Your task to perform on an android device: Search for a dining table on Crate & Barrel Image 0: 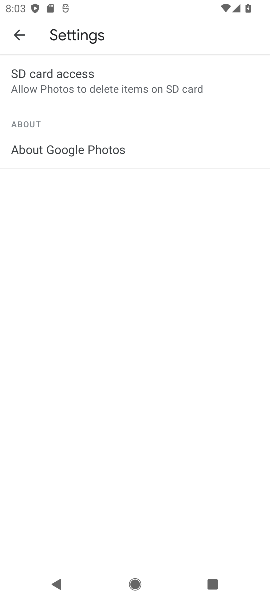
Step 0: press home button
Your task to perform on an android device: Search for a dining table on Crate & Barrel Image 1: 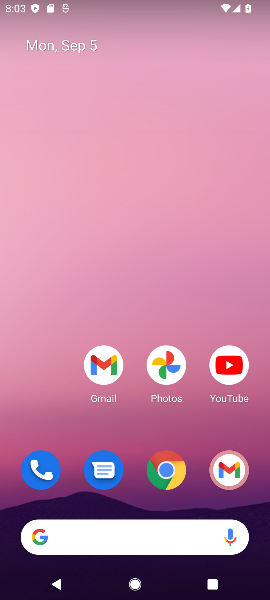
Step 1: click (133, 542)
Your task to perform on an android device: Search for a dining table on Crate & Barrel Image 2: 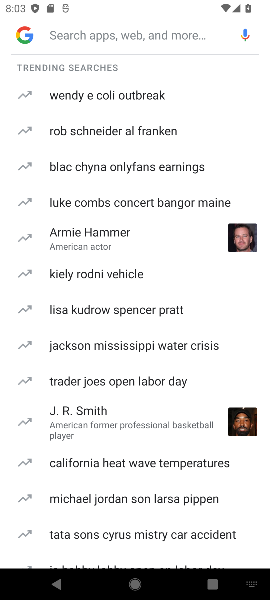
Step 2: type "crate & barrel"
Your task to perform on an android device: Search for a dining table on Crate & Barrel Image 3: 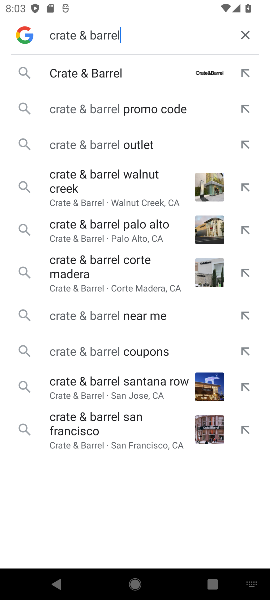
Step 3: click (94, 68)
Your task to perform on an android device: Search for a dining table on Crate & Barrel Image 4: 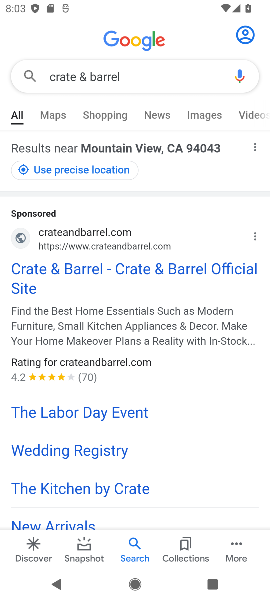
Step 4: click (89, 264)
Your task to perform on an android device: Search for a dining table on Crate & Barrel Image 5: 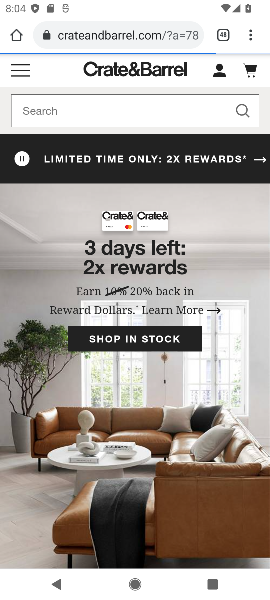
Step 5: click (111, 108)
Your task to perform on an android device: Search for a dining table on Crate & Barrel Image 6: 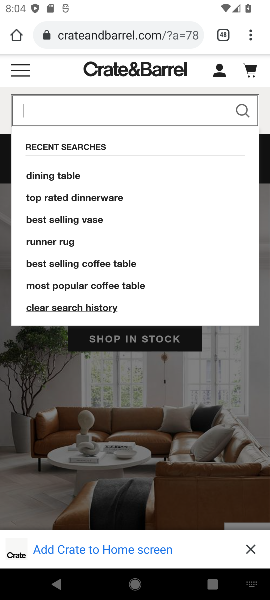
Step 6: type "dining table"
Your task to perform on an android device: Search for a dining table on Crate & Barrel Image 7: 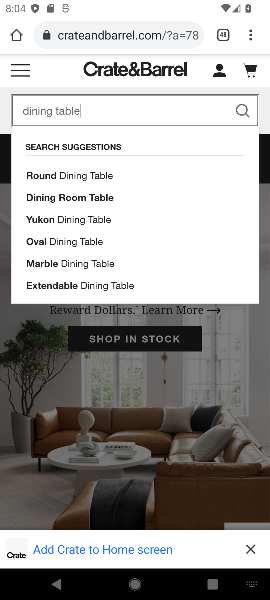
Step 7: click (238, 106)
Your task to perform on an android device: Search for a dining table on Crate & Barrel Image 8: 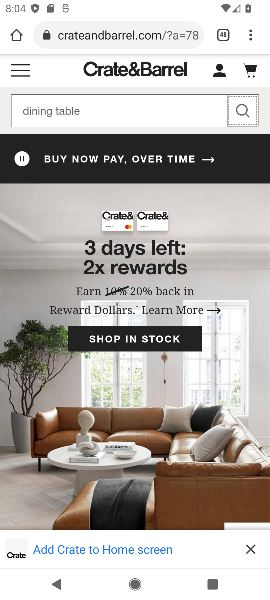
Step 8: click (235, 102)
Your task to perform on an android device: Search for a dining table on Crate & Barrel Image 9: 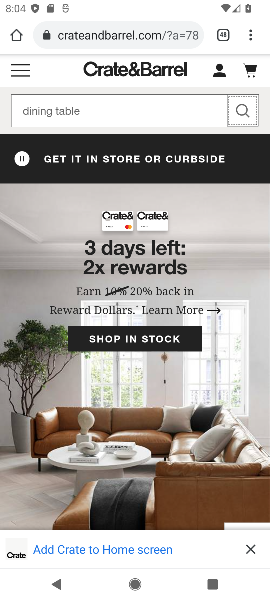
Step 9: click (249, 550)
Your task to perform on an android device: Search for a dining table on Crate & Barrel Image 10: 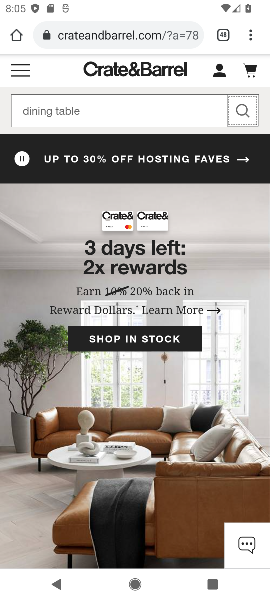
Step 10: click (244, 113)
Your task to perform on an android device: Search for a dining table on Crate & Barrel Image 11: 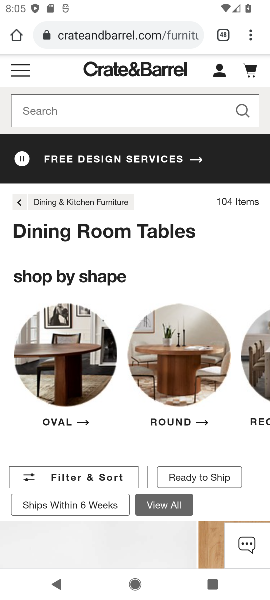
Step 11: click (164, 503)
Your task to perform on an android device: Search for a dining table on Crate & Barrel Image 12: 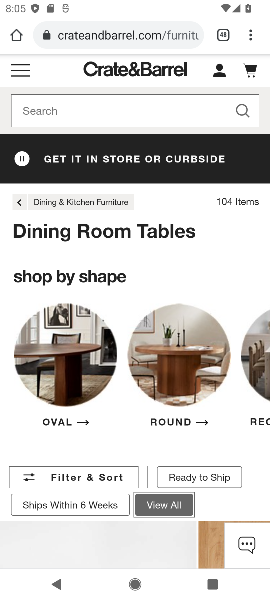
Step 12: task complete